Your task to perform on an android device: open app "ColorNote Notepad Notes" Image 0: 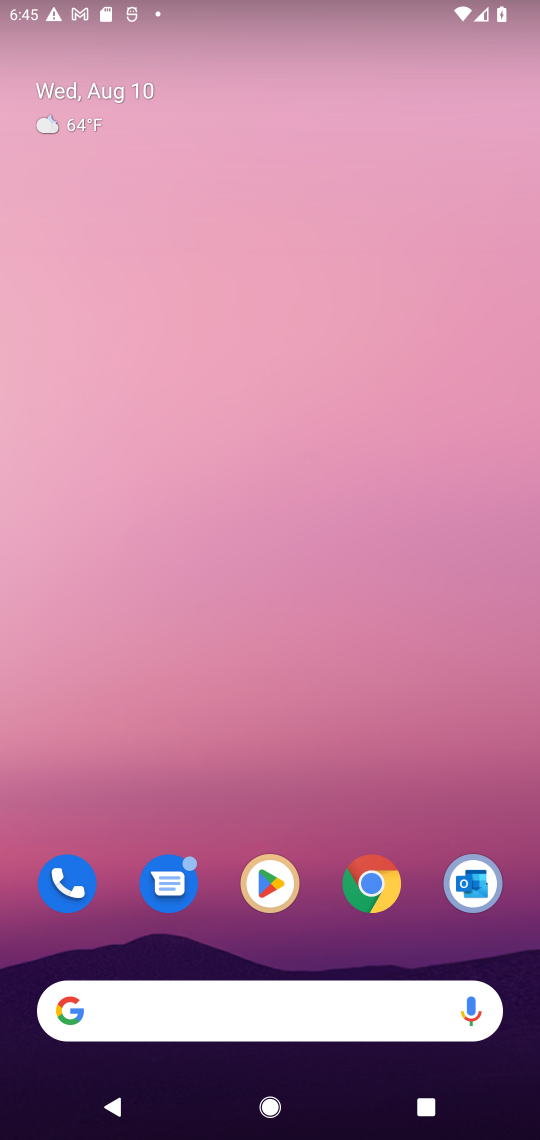
Step 0: click (266, 876)
Your task to perform on an android device: open app "ColorNote Notepad Notes" Image 1: 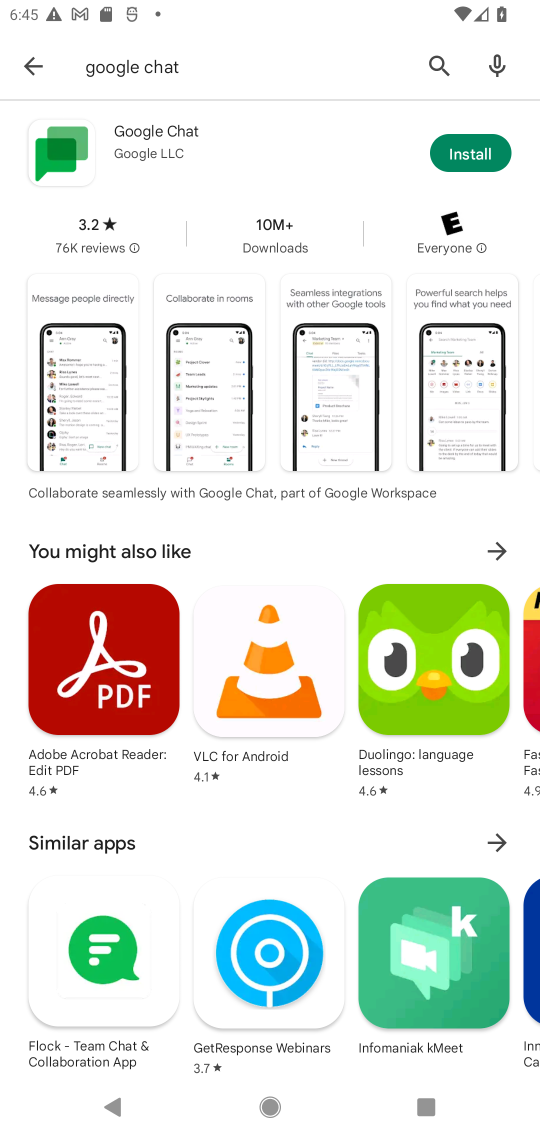
Step 1: click (424, 67)
Your task to perform on an android device: open app "ColorNote Notepad Notes" Image 2: 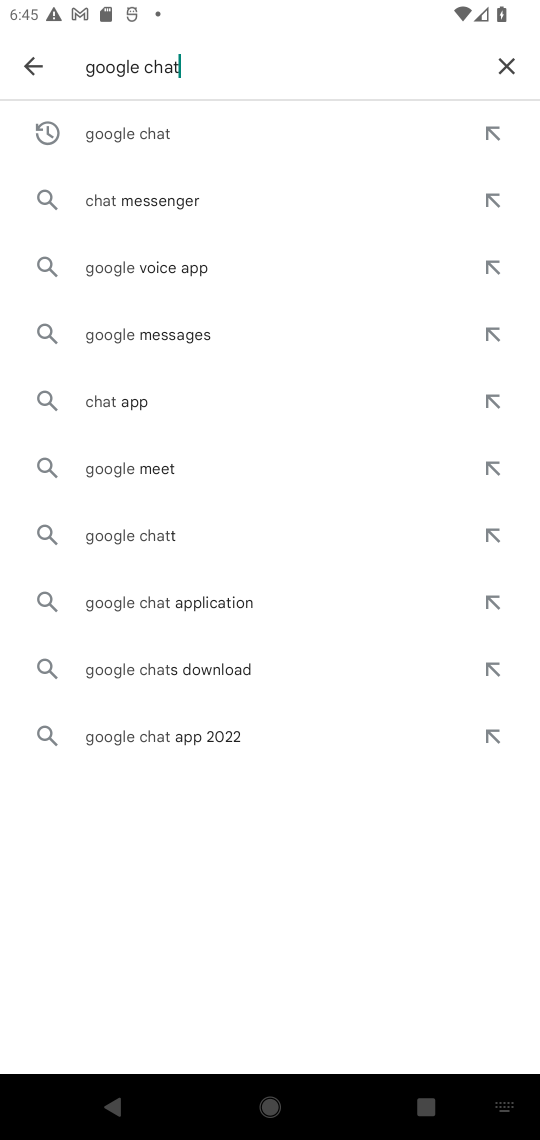
Step 2: click (227, 129)
Your task to perform on an android device: open app "ColorNote Notepad Notes" Image 3: 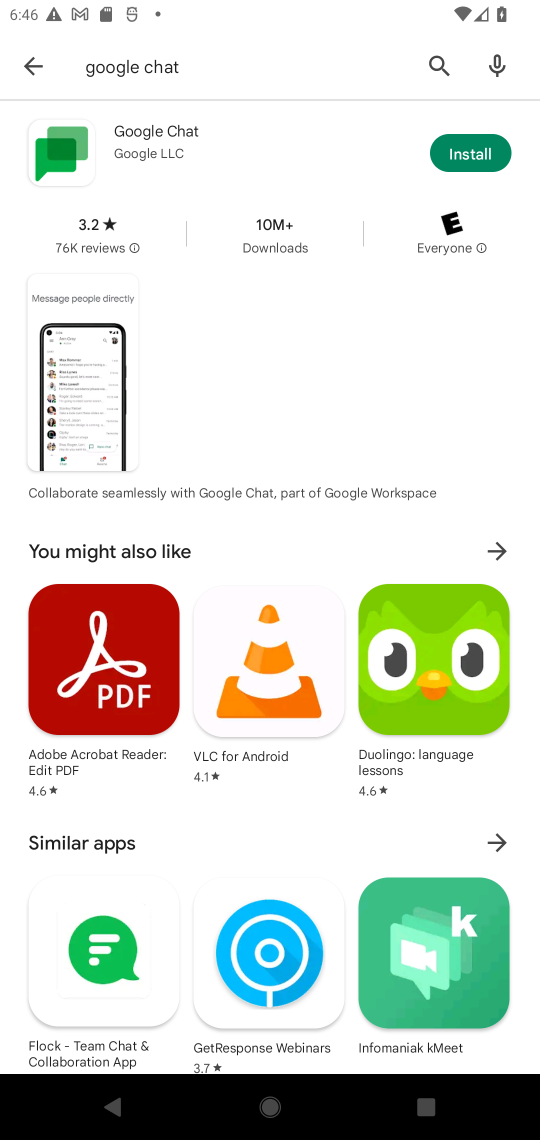
Step 3: click (503, 55)
Your task to perform on an android device: open app "ColorNote Notepad Notes" Image 4: 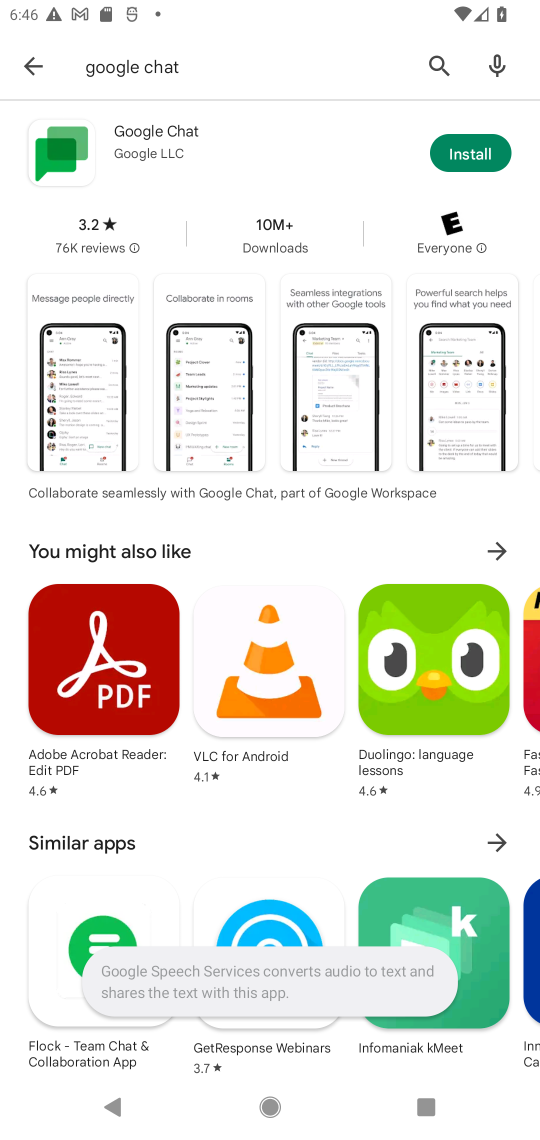
Step 4: click (447, 55)
Your task to perform on an android device: open app "ColorNote Notepad Notes" Image 5: 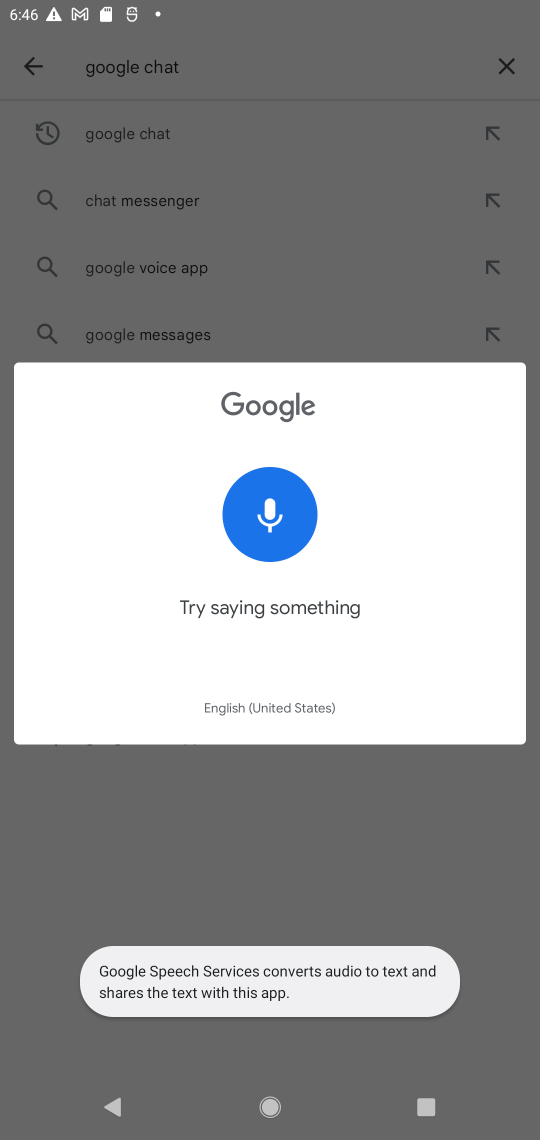
Step 5: click (502, 66)
Your task to perform on an android device: open app "ColorNote Notepad Notes" Image 6: 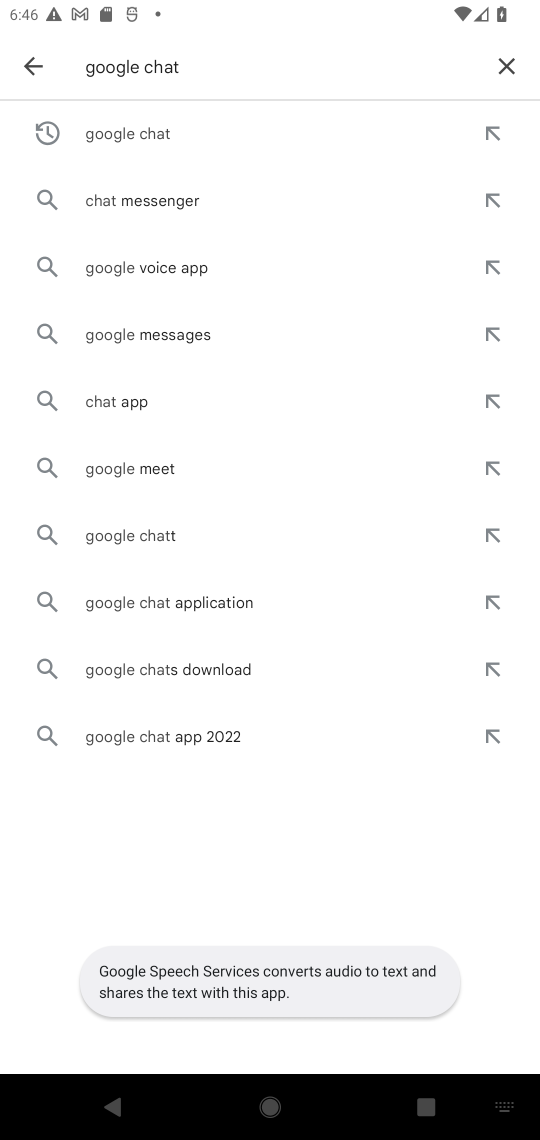
Step 6: click (505, 56)
Your task to perform on an android device: open app "ColorNote Notepad Notes" Image 7: 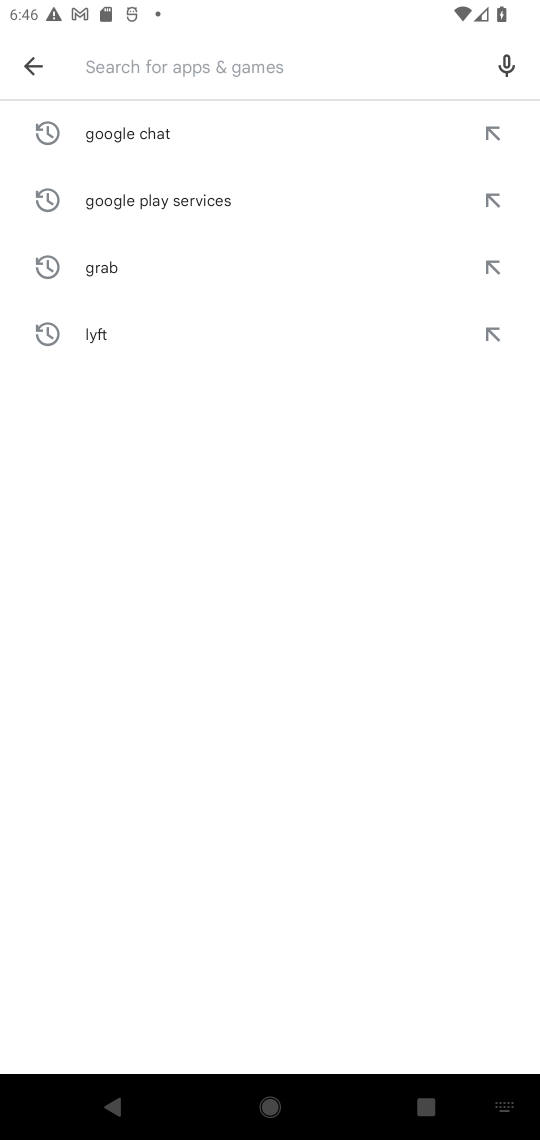
Step 7: type "ColorNote Notepad Notes"
Your task to perform on an android device: open app "ColorNote Notepad Notes" Image 8: 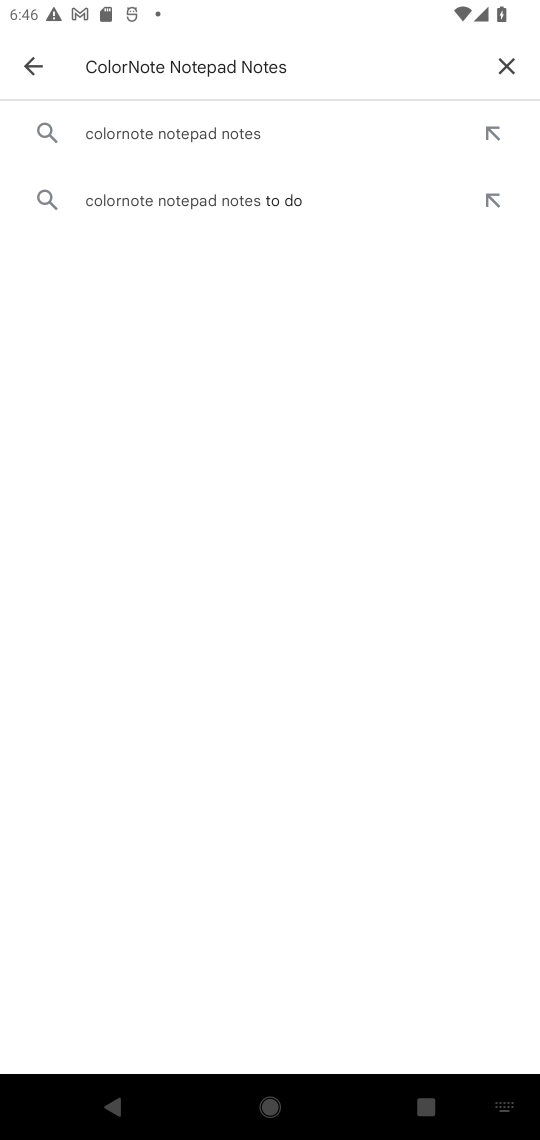
Step 8: click (198, 133)
Your task to perform on an android device: open app "ColorNote Notepad Notes" Image 9: 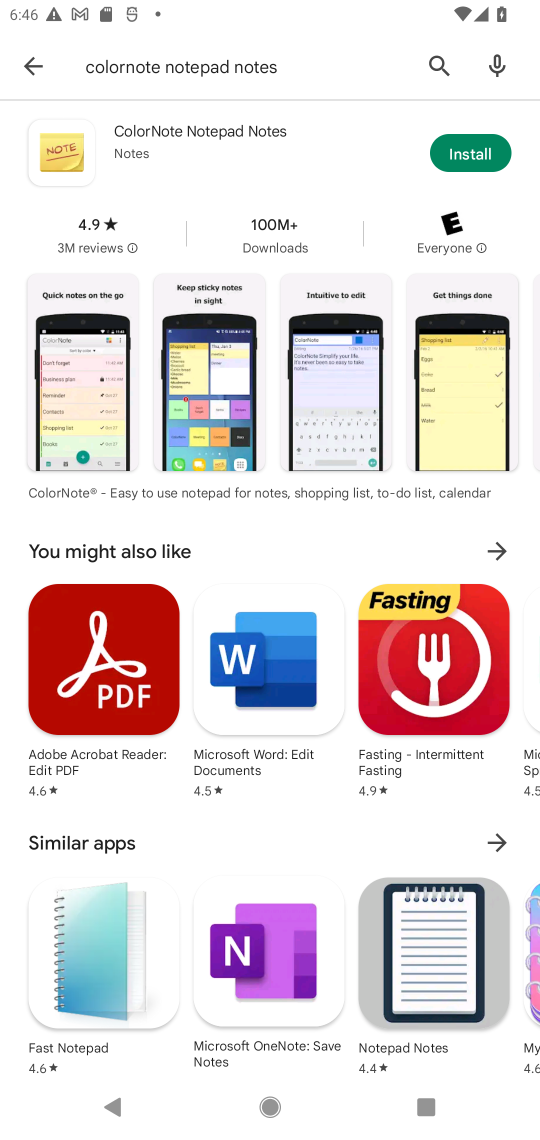
Step 9: task complete